Your task to perform on an android device: turn off airplane mode Image 0: 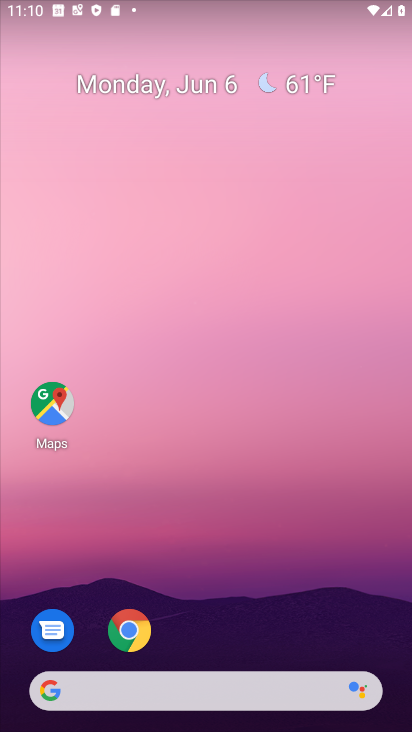
Step 0: drag from (309, 532) to (307, 181)
Your task to perform on an android device: turn off airplane mode Image 1: 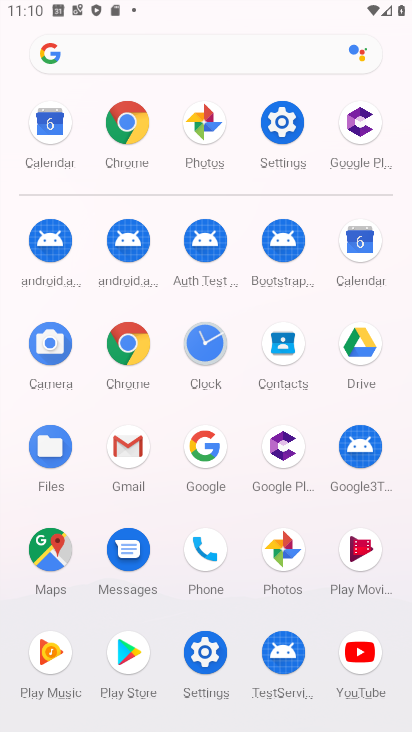
Step 1: click (300, 143)
Your task to perform on an android device: turn off airplane mode Image 2: 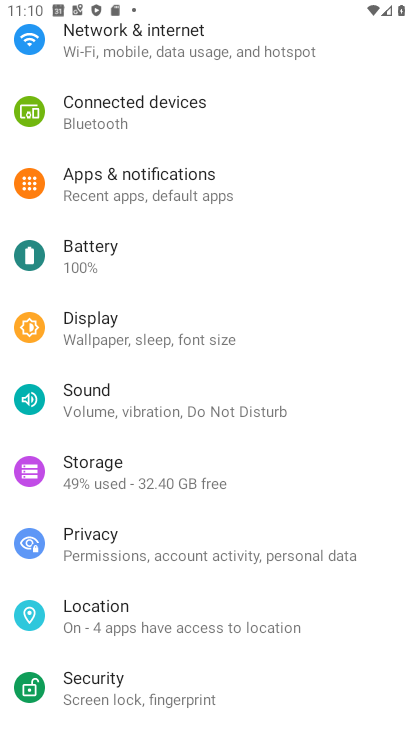
Step 2: drag from (303, 104) to (315, 534)
Your task to perform on an android device: turn off airplane mode Image 3: 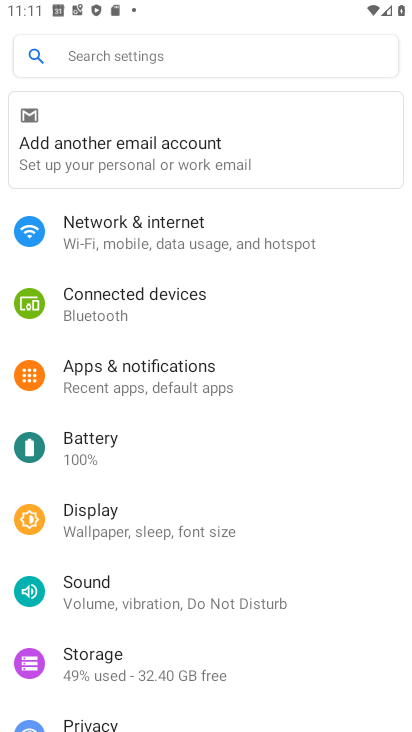
Step 3: click (235, 233)
Your task to perform on an android device: turn off airplane mode Image 4: 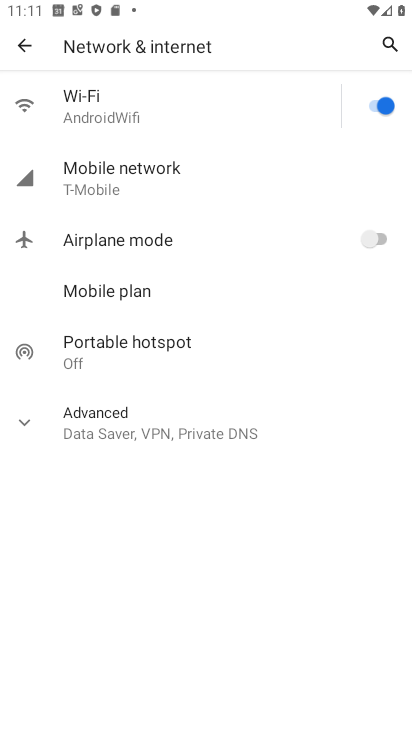
Step 4: task complete